Your task to perform on an android device: open a new tab in the chrome app Image 0: 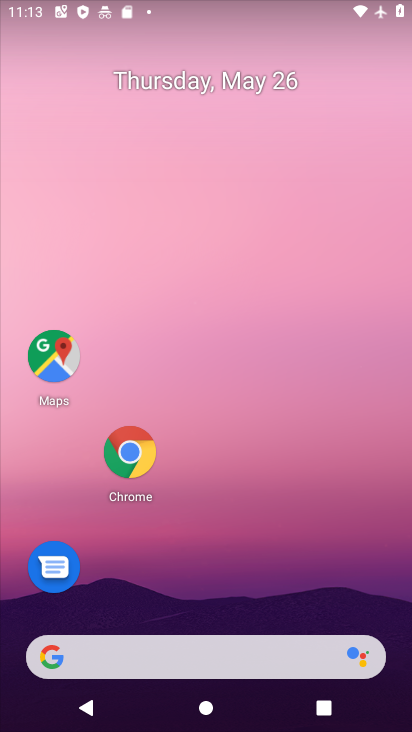
Step 0: click (135, 452)
Your task to perform on an android device: open a new tab in the chrome app Image 1: 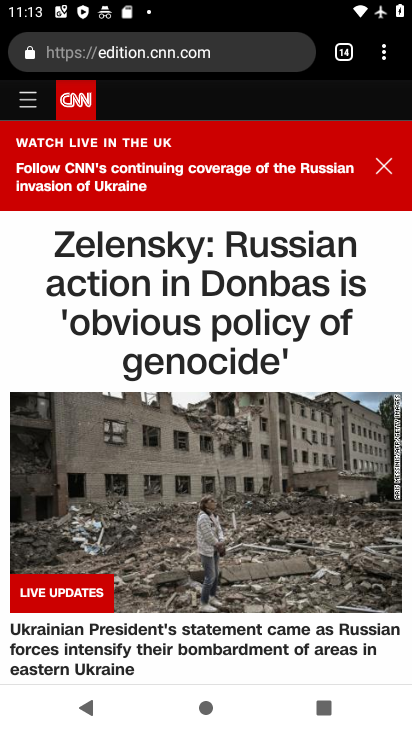
Step 1: task complete